Your task to perform on an android device: toggle notification dots Image 0: 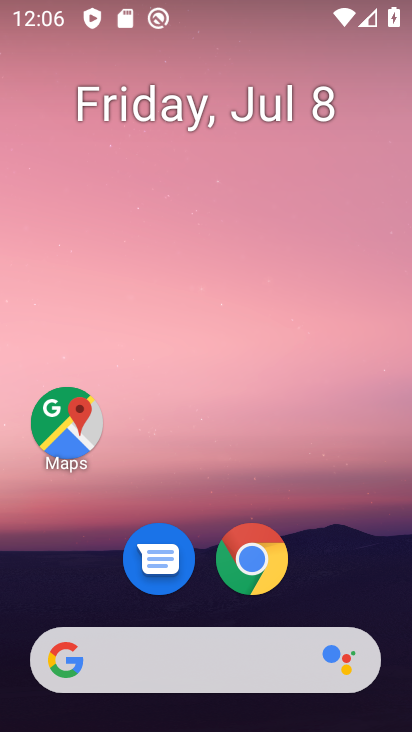
Step 0: drag from (181, 633) to (162, 65)
Your task to perform on an android device: toggle notification dots Image 1: 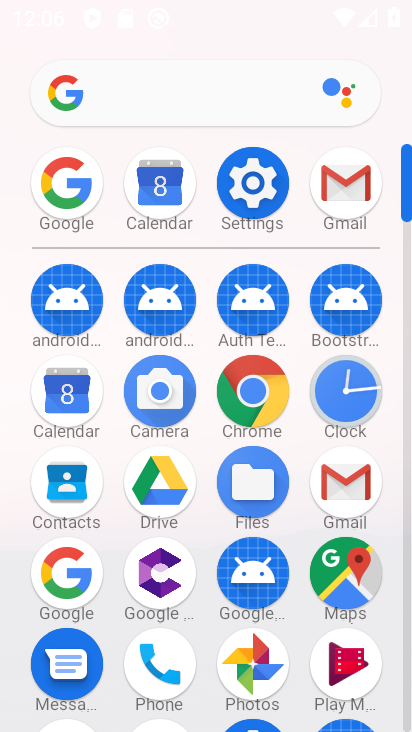
Step 1: click (261, 184)
Your task to perform on an android device: toggle notification dots Image 2: 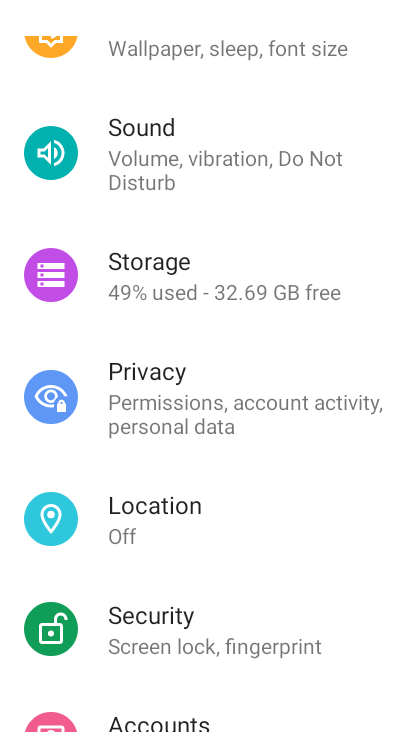
Step 2: drag from (270, 271) to (330, 655)
Your task to perform on an android device: toggle notification dots Image 3: 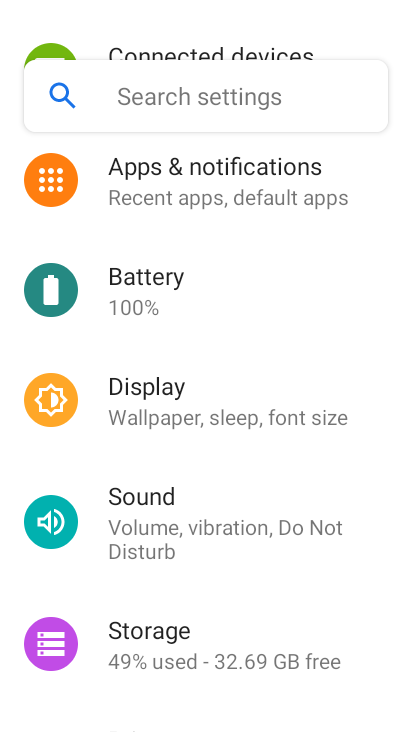
Step 3: click (213, 200)
Your task to perform on an android device: toggle notification dots Image 4: 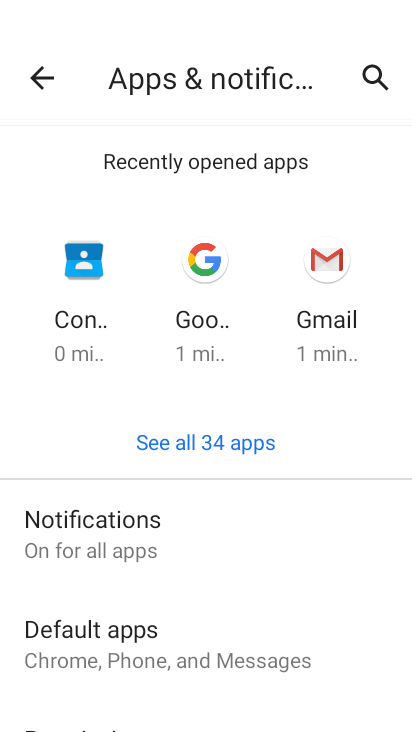
Step 4: click (100, 553)
Your task to perform on an android device: toggle notification dots Image 5: 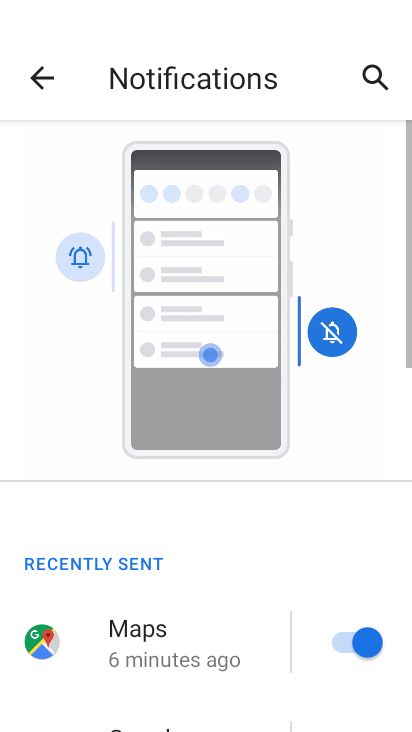
Step 5: drag from (169, 611) to (126, 218)
Your task to perform on an android device: toggle notification dots Image 6: 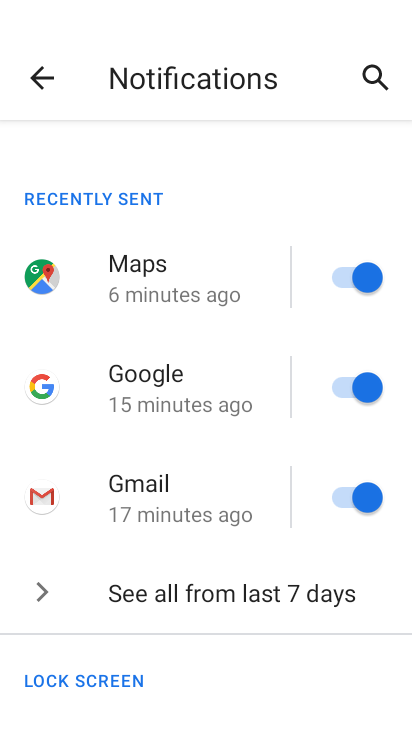
Step 6: drag from (274, 550) to (252, 239)
Your task to perform on an android device: toggle notification dots Image 7: 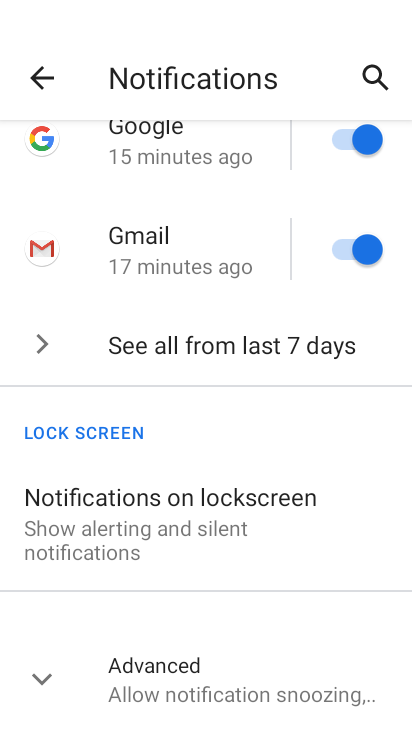
Step 7: click (207, 703)
Your task to perform on an android device: toggle notification dots Image 8: 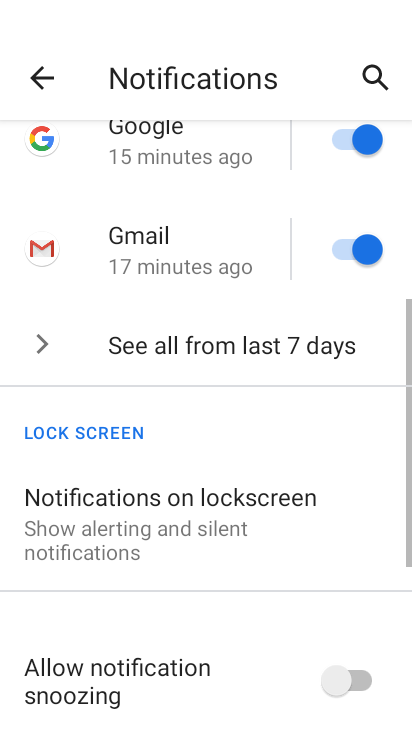
Step 8: drag from (207, 699) to (146, 214)
Your task to perform on an android device: toggle notification dots Image 9: 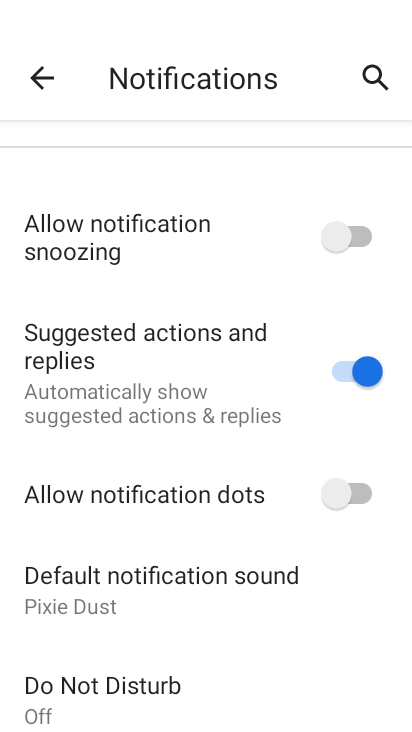
Step 9: click (349, 492)
Your task to perform on an android device: toggle notification dots Image 10: 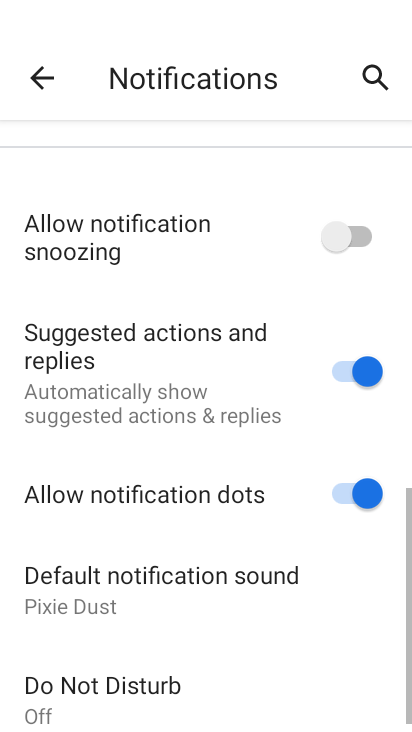
Step 10: task complete